Your task to perform on an android device: turn on bluetooth scan Image 0: 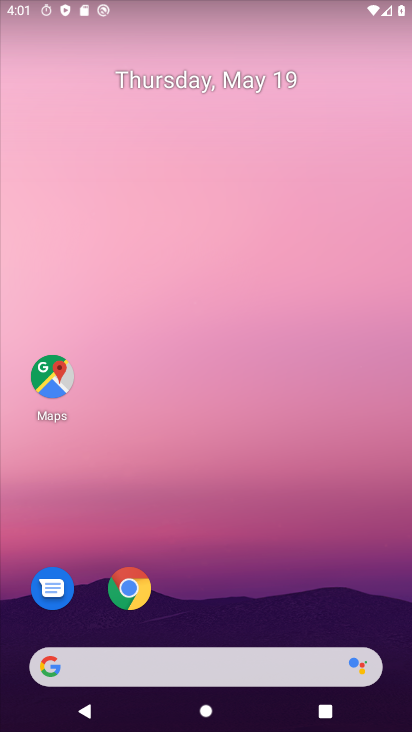
Step 0: drag from (232, 596) to (261, 132)
Your task to perform on an android device: turn on bluetooth scan Image 1: 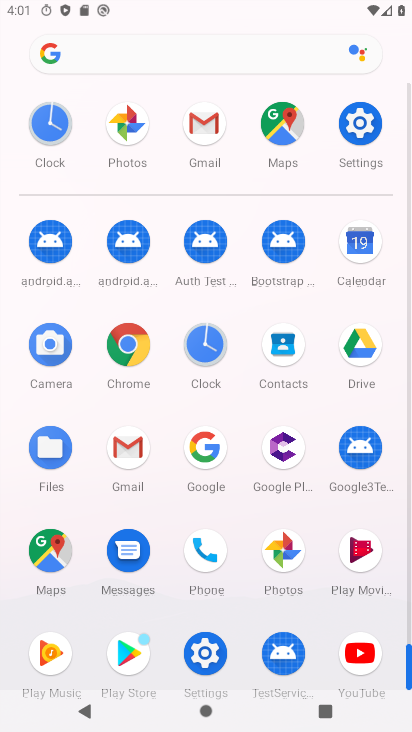
Step 1: click (361, 154)
Your task to perform on an android device: turn on bluetooth scan Image 2: 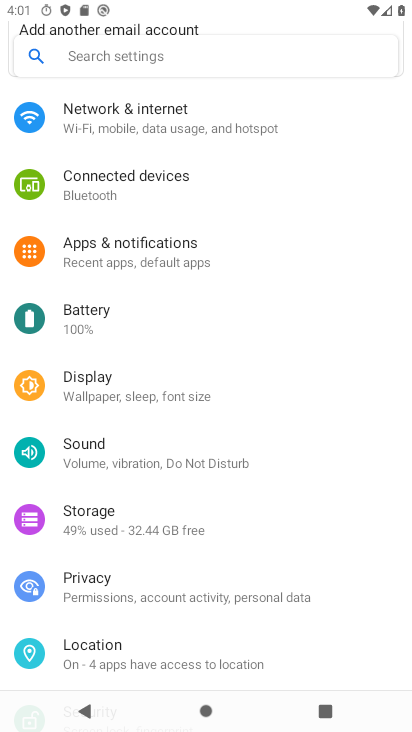
Step 2: click (139, 139)
Your task to perform on an android device: turn on bluetooth scan Image 3: 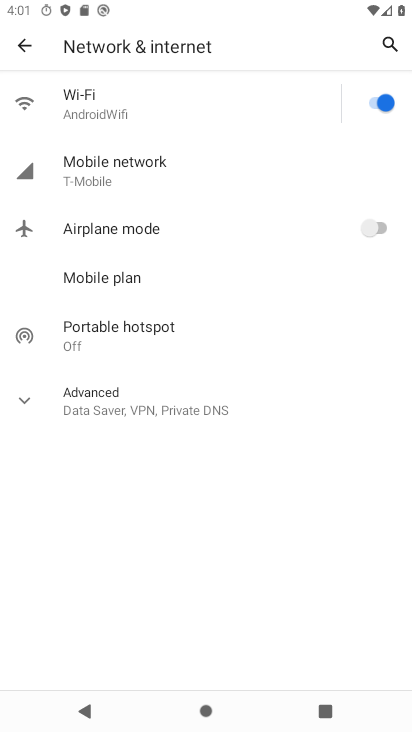
Step 3: click (22, 46)
Your task to perform on an android device: turn on bluetooth scan Image 4: 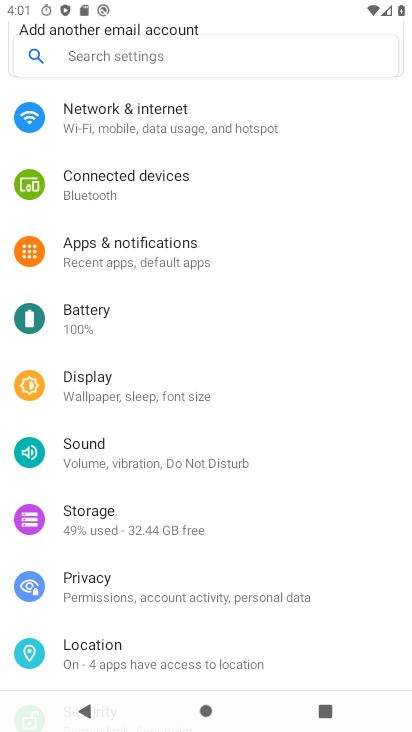
Step 4: click (140, 658)
Your task to perform on an android device: turn on bluetooth scan Image 5: 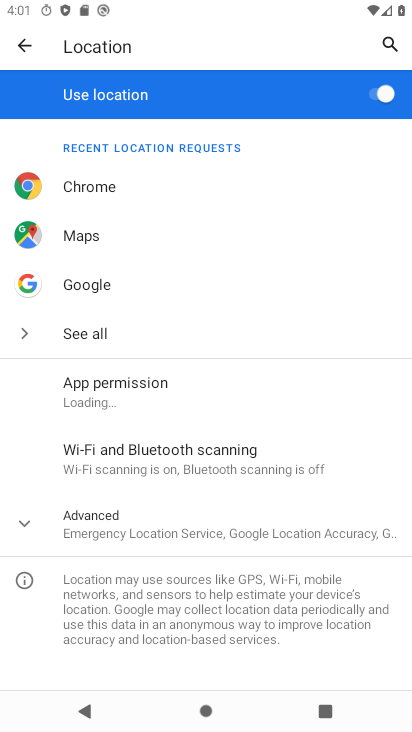
Step 5: click (179, 474)
Your task to perform on an android device: turn on bluetooth scan Image 6: 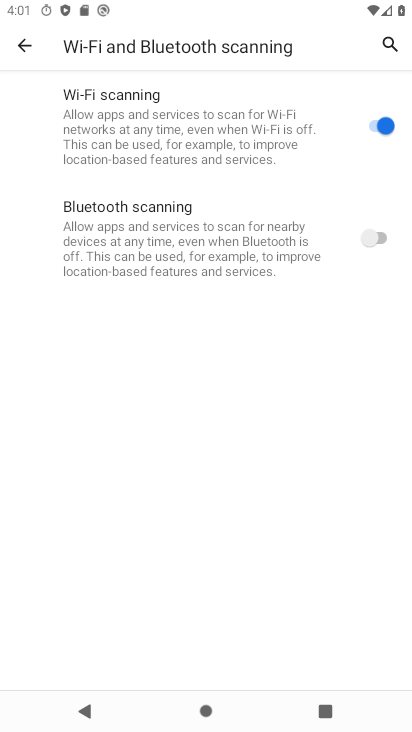
Step 6: click (328, 243)
Your task to perform on an android device: turn on bluetooth scan Image 7: 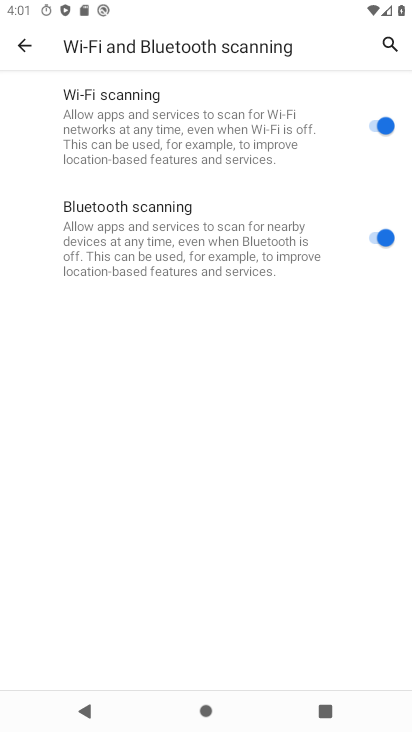
Step 7: task complete